Your task to perform on an android device: Open Yahoo.com Image 0: 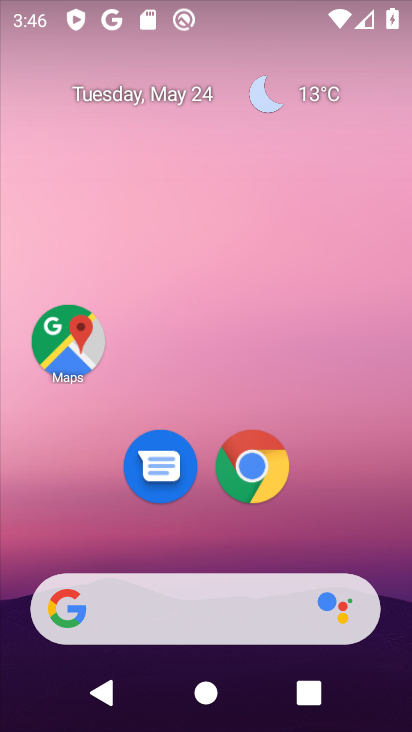
Step 0: click (253, 459)
Your task to perform on an android device: Open Yahoo.com Image 1: 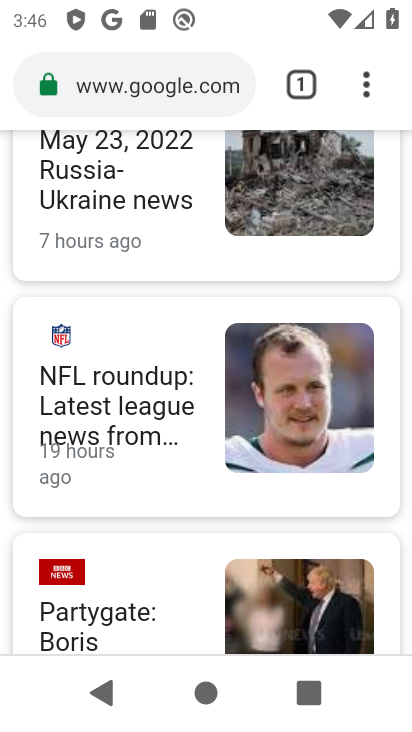
Step 1: drag from (160, 125) to (144, 540)
Your task to perform on an android device: Open Yahoo.com Image 2: 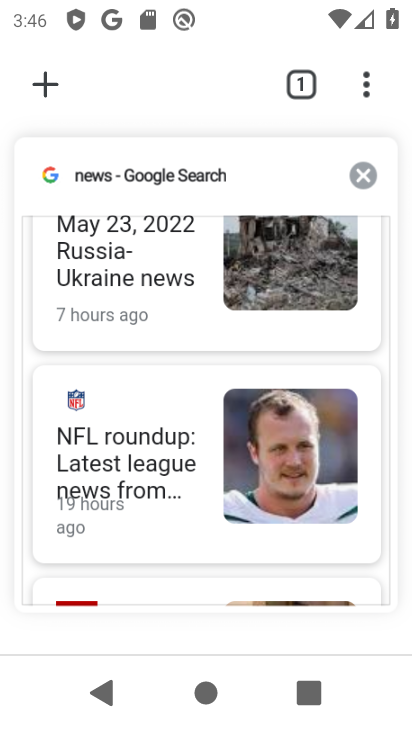
Step 2: drag from (161, 291) to (200, 143)
Your task to perform on an android device: Open Yahoo.com Image 3: 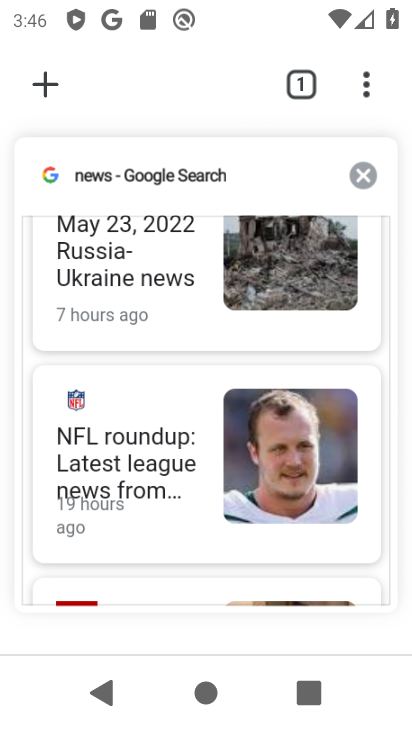
Step 3: press back button
Your task to perform on an android device: Open Yahoo.com Image 4: 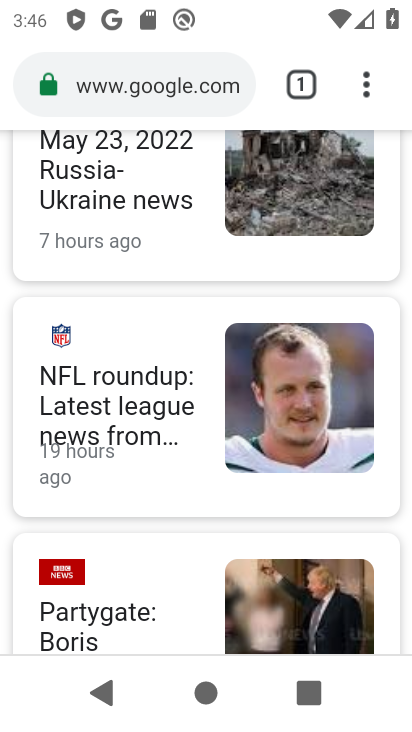
Step 4: click (169, 76)
Your task to perform on an android device: Open Yahoo.com Image 5: 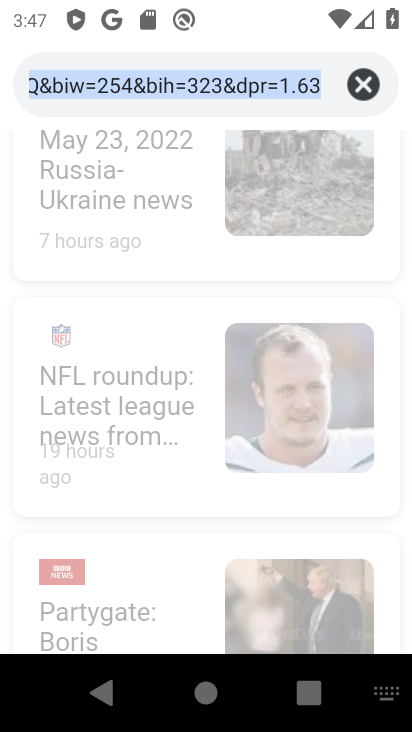
Step 5: click (360, 87)
Your task to perform on an android device: Open Yahoo.com Image 6: 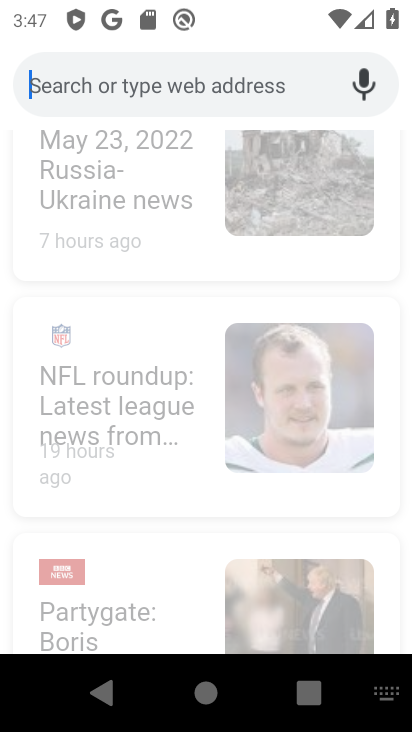
Step 6: type "yahoo.com"
Your task to perform on an android device: Open Yahoo.com Image 7: 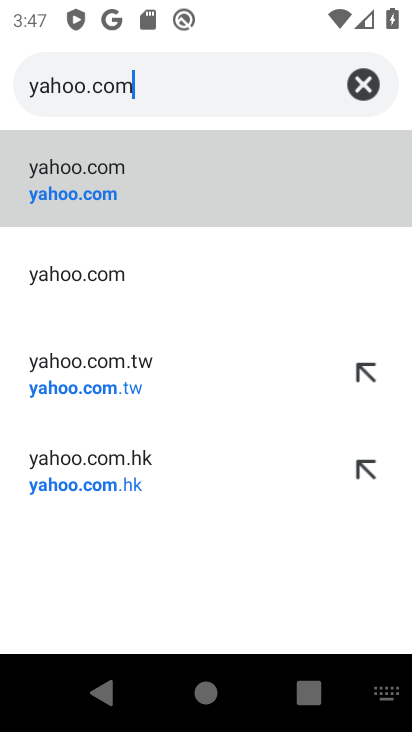
Step 7: click (83, 195)
Your task to perform on an android device: Open Yahoo.com Image 8: 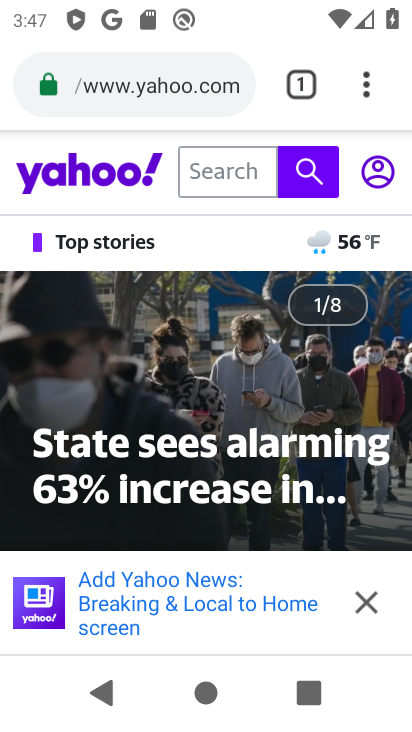
Step 8: task complete